Your task to perform on an android device: all mails in gmail Image 0: 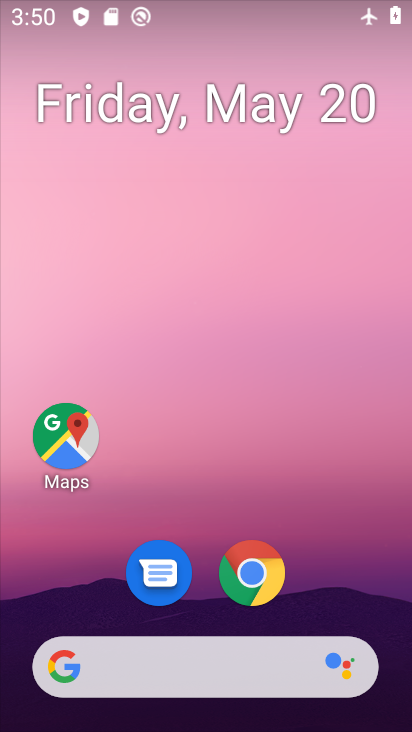
Step 0: drag from (374, 615) to (266, 134)
Your task to perform on an android device: all mails in gmail Image 1: 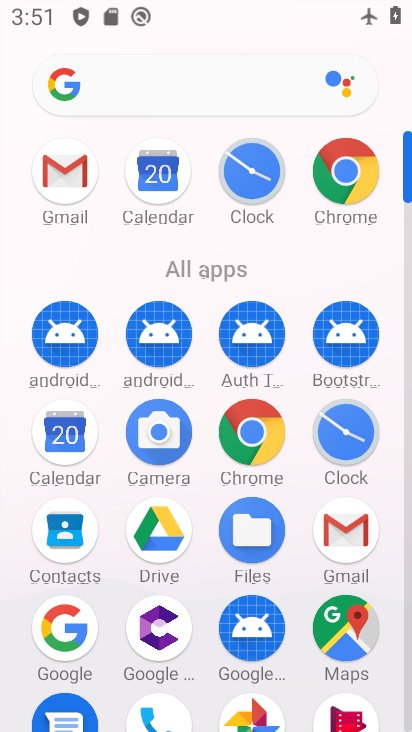
Step 1: click (67, 175)
Your task to perform on an android device: all mails in gmail Image 2: 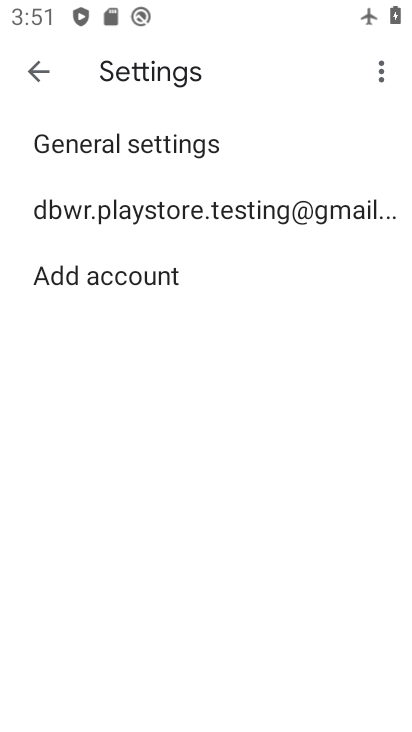
Step 2: click (35, 72)
Your task to perform on an android device: all mails in gmail Image 3: 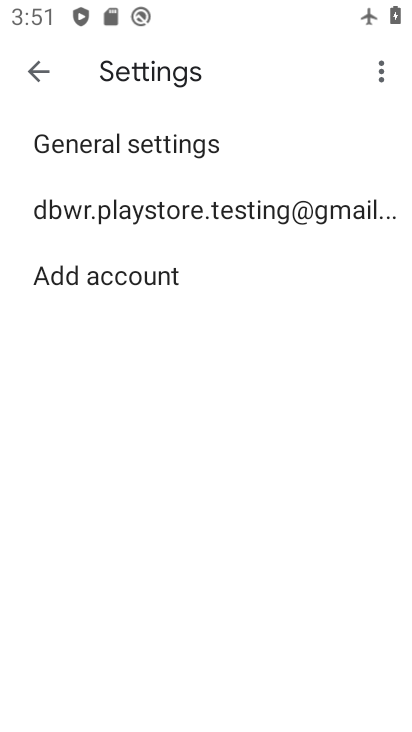
Step 3: click (35, 72)
Your task to perform on an android device: all mails in gmail Image 4: 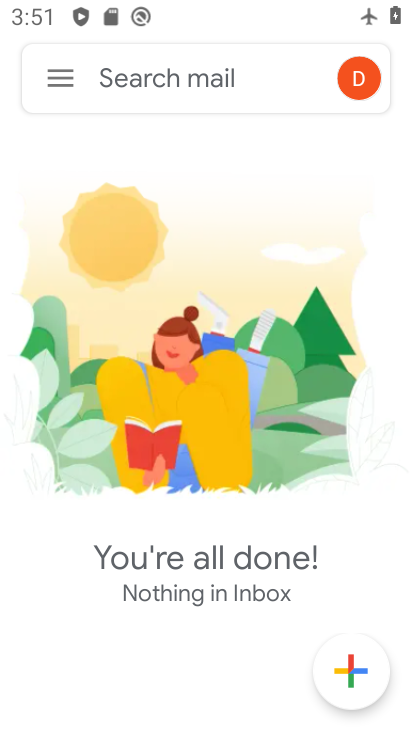
Step 4: click (52, 72)
Your task to perform on an android device: all mails in gmail Image 5: 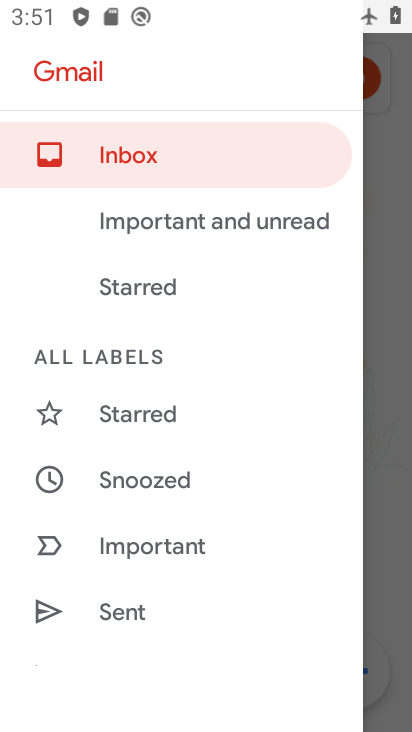
Step 5: drag from (226, 554) to (156, 200)
Your task to perform on an android device: all mails in gmail Image 6: 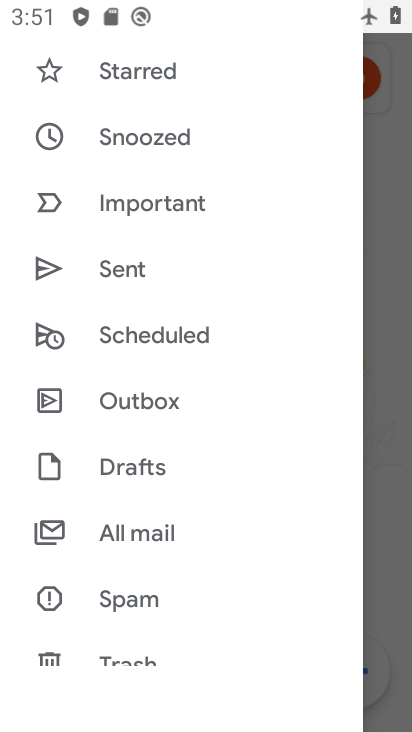
Step 6: click (206, 540)
Your task to perform on an android device: all mails in gmail Image 7: 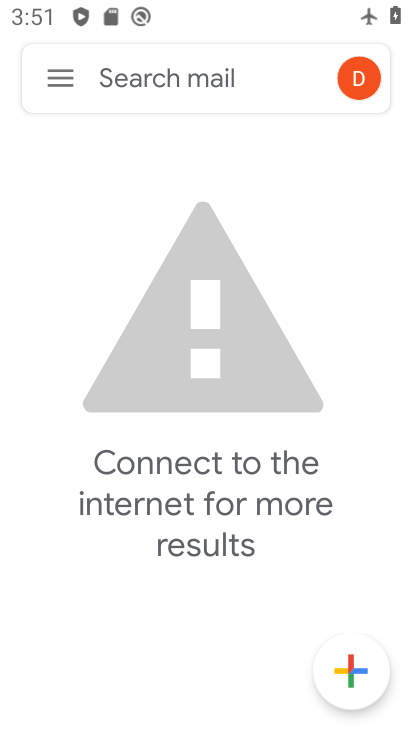
Step 7: task complete